Your task to perform on an android device: Open Yahoo.com Image 0: 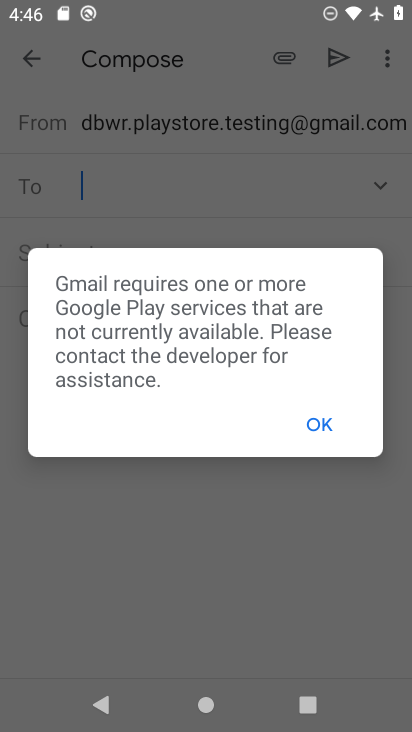
Step 0: press home button
Your task to perform on an android device: Open Yahoo.com Image 1: 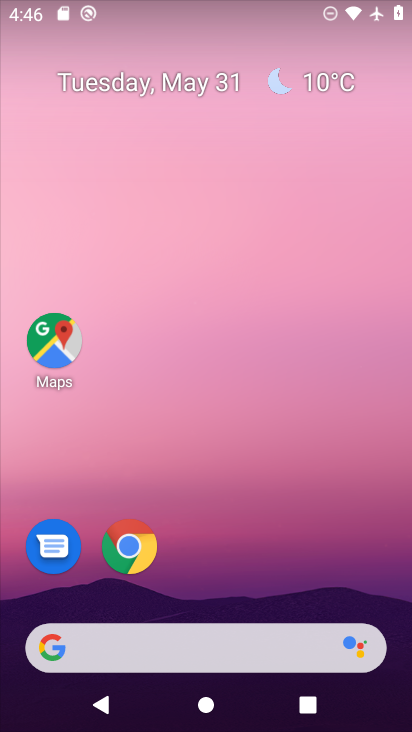
Step 1: click (129, 545)
Your task to perform on an android device: Open Yahoo.com Image 2: 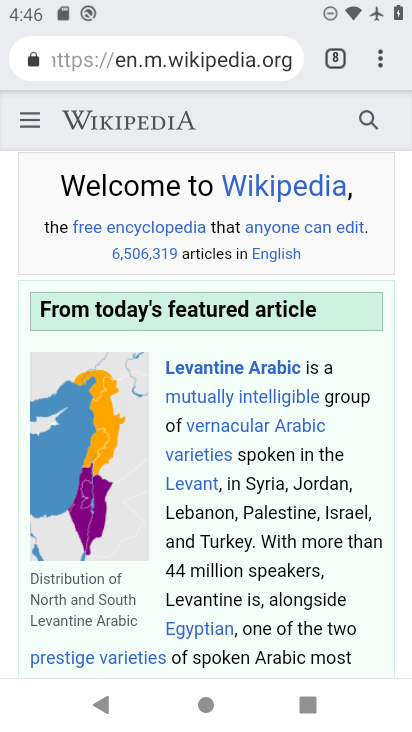
Step 2: click (345, 52)
Your task to perform on an android device: Open Yahoo.com Image 3: 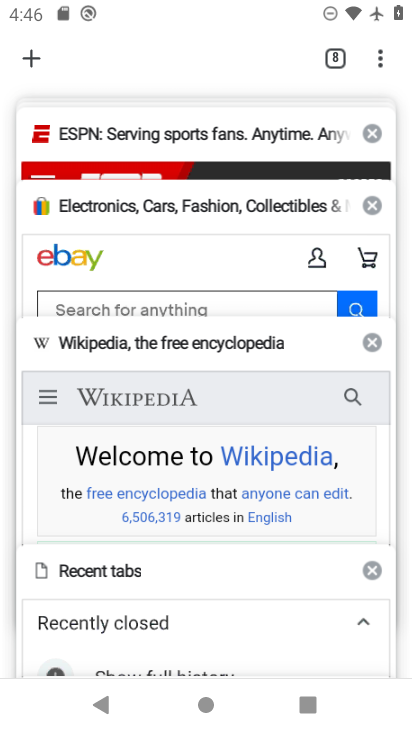
Step 3: drag from (141, 210) to (175, 652)
Your task to perform on an android device: Open Yahoo.com Image 4: 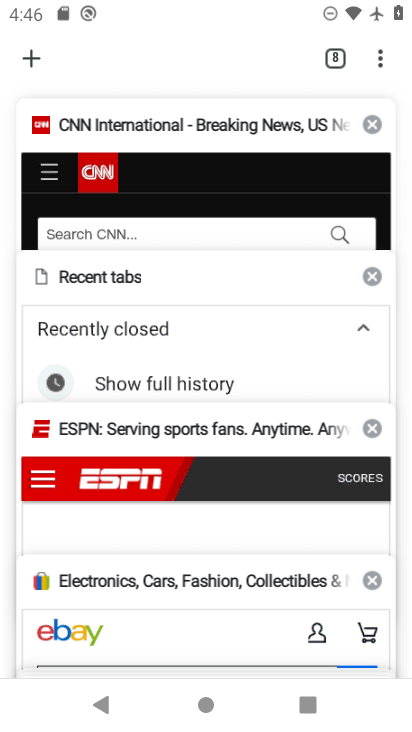
Step 4: click (19, 53)
Your task to perform on an android device: Open Yahoo.com Image 5: 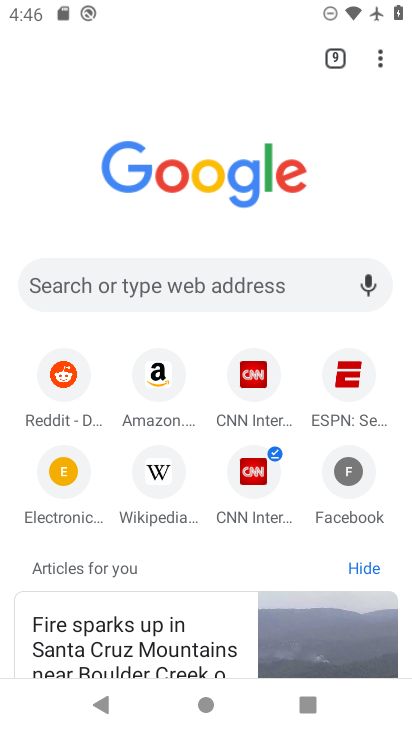
Step 5: click (157, 284)
Your task to perform on an android device: Open Yahoo.com Image 6: 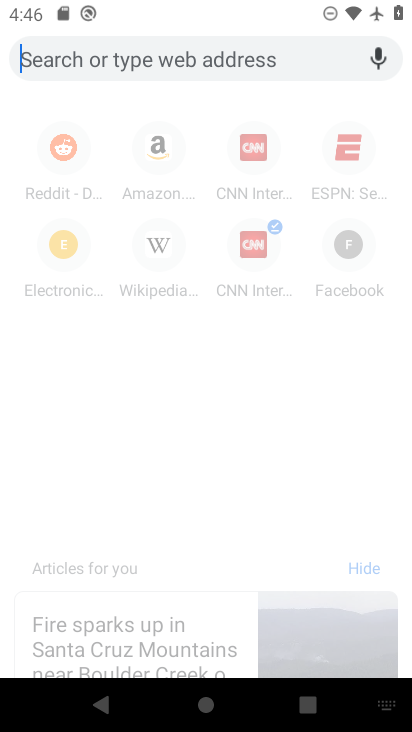
Step 6: type "yahoo.com"
Your task to perform on an android device: Open Yahoo.com Image 7: 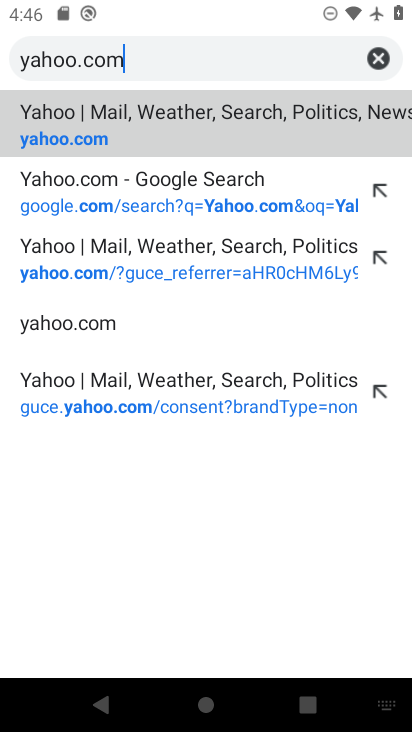
Step 7: click (150, 138)
Your task to perform on an android device: Open Yahoo.com Image 8: 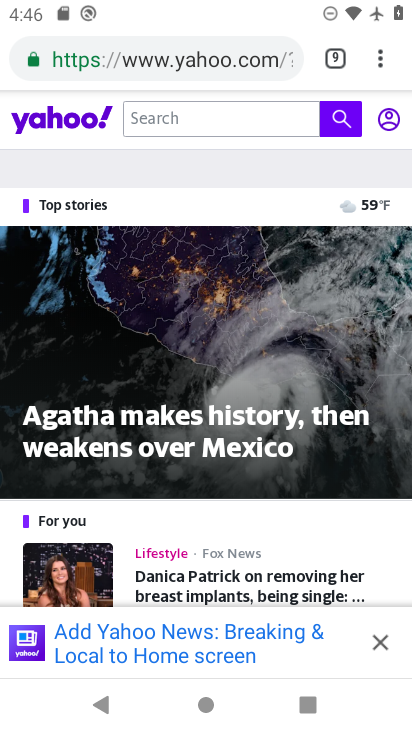
Step 8: task complete